Your task to perform on an android device: Check the weather Image 0: 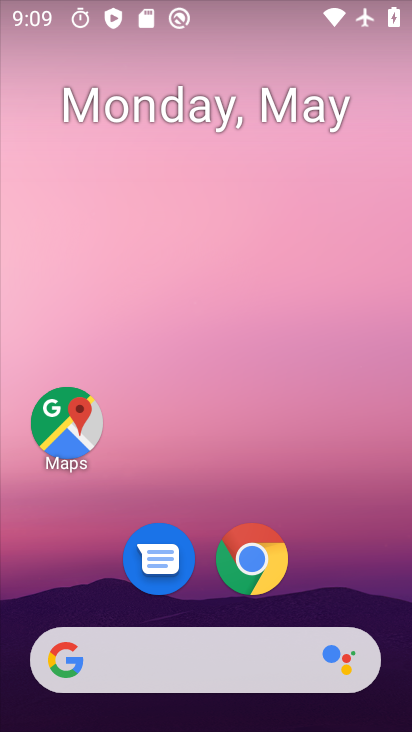
Step 0: click (218, 660)
Your task to perform on an android device: Check the weather Image 1: 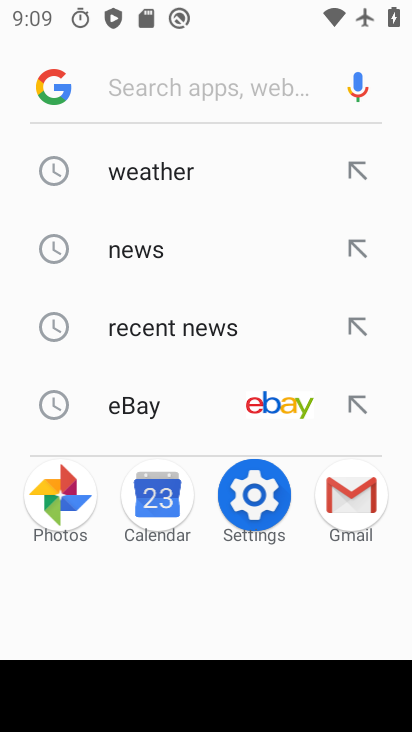
Step 1: type "weather"
Your task to perform on an android device: Check the weather Image 2: 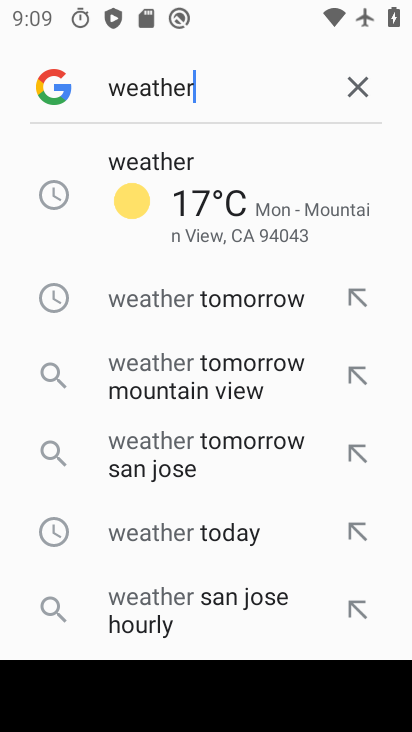
Step 2: click (158, 223)
Your task to perform on an android device: Check the weather Image 3: 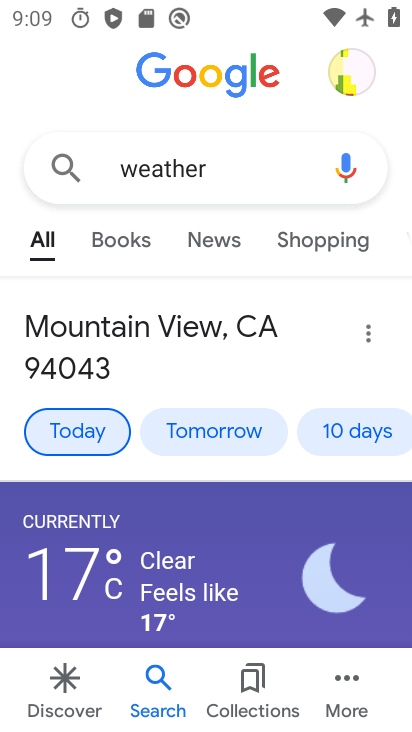
Step 3: task complete